Your task to perform on an android device: create a new album in the google photos Image 0: 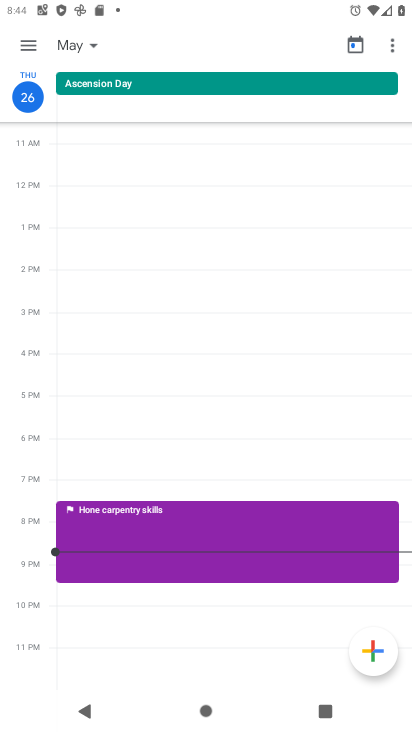
Step 0: press home button
Your task to perform on an android device: create a new album in the google photos Image 1: 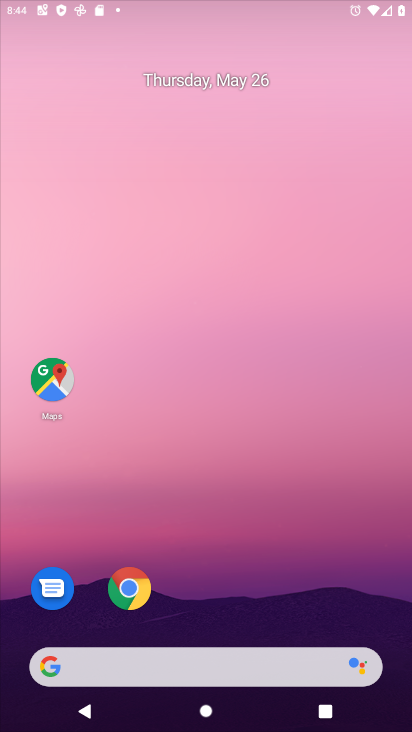
Step 1: drag from (404, 658) to (288, 67)
Your task to perform on an android device: create a new album in the google photos Image 2: 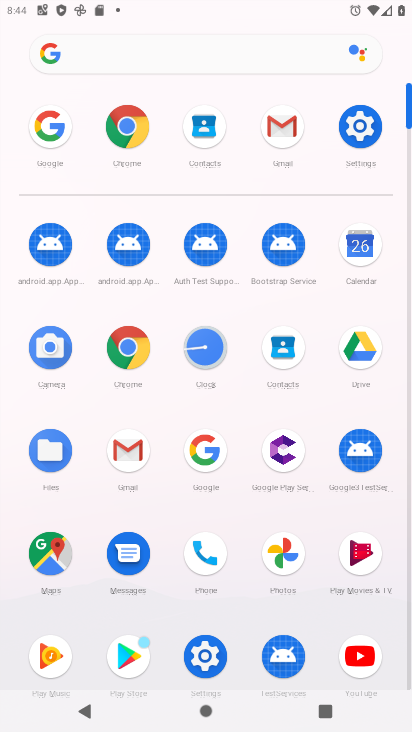
Step 2: click (281, 563)
Your task to perform on an android device: create a new album in the google photos Image 3: 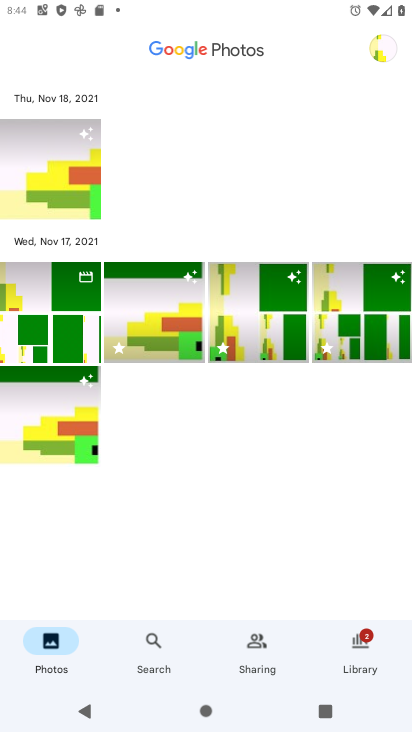
Step 3: click (379, 332)
Your task to perform on an android device: create a new album in the google photos Image 4: 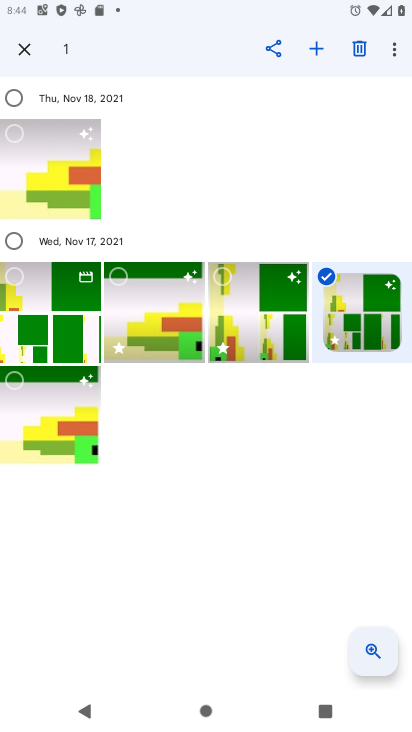
Step 4: click (308, 49)
Your task to perform on an android device: create a new album in the google photos Image 5: 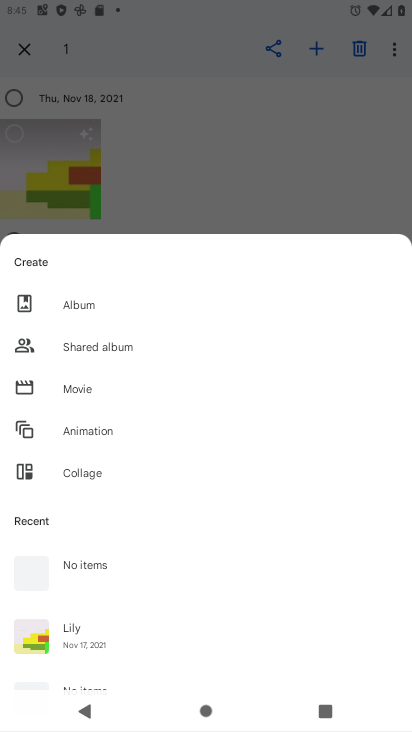
Step 5: click (142, 299)
Your task to perform on an android device: create a new album in the google photos Image 6: 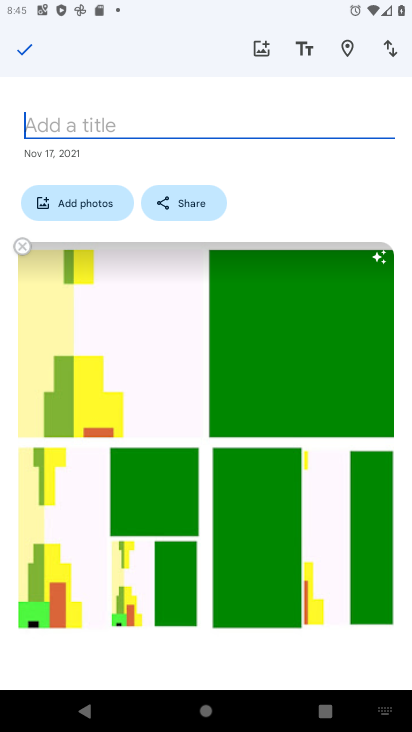
Step 6: type "VVV"
Your task to perform on an android device: create a new album in the google photos Image 7: 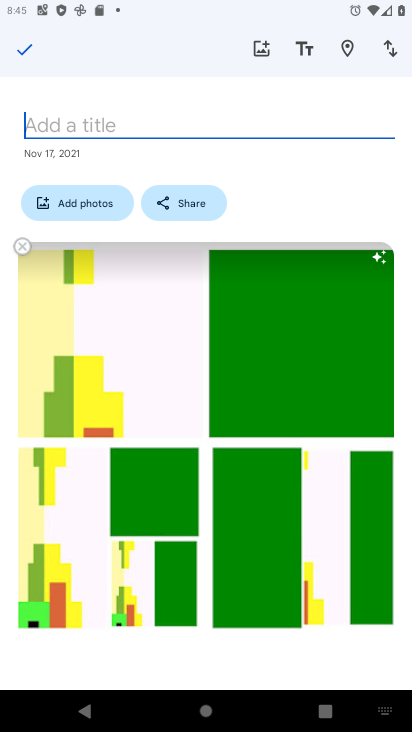
Step 7: click (29, 38)
Your task to perform on an android device: create a new album in the google photos Image 8: 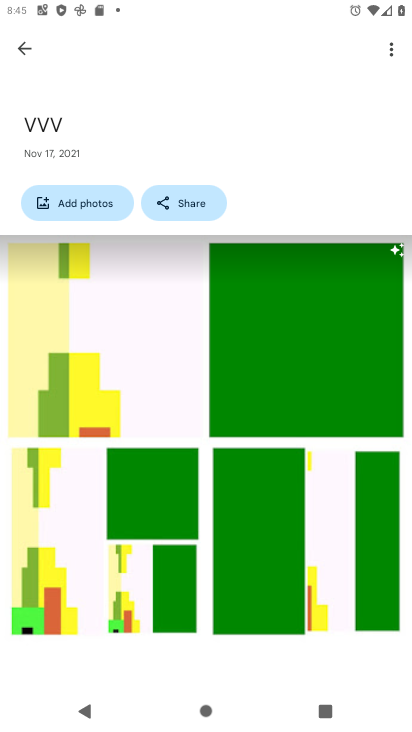
Step 8: task complete